Your task to perform on an android device: toggle improve location accuracy Image 0: 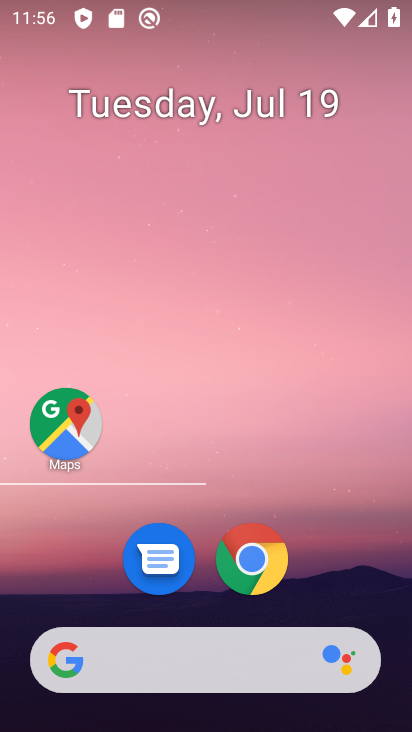
Step 0: press home button
Your task to perform on an android device: toggle improve location accuracy Image 1: 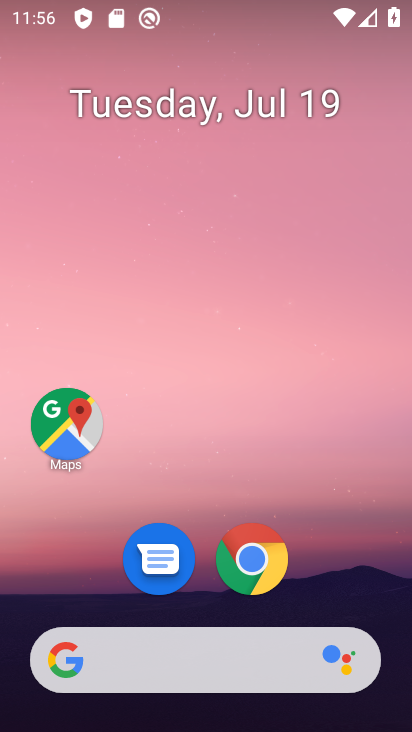
Step 1: drag from (369, 582) to (361, 82)
Your task to perform on an android device: toggle improve location accuracy Image 2: 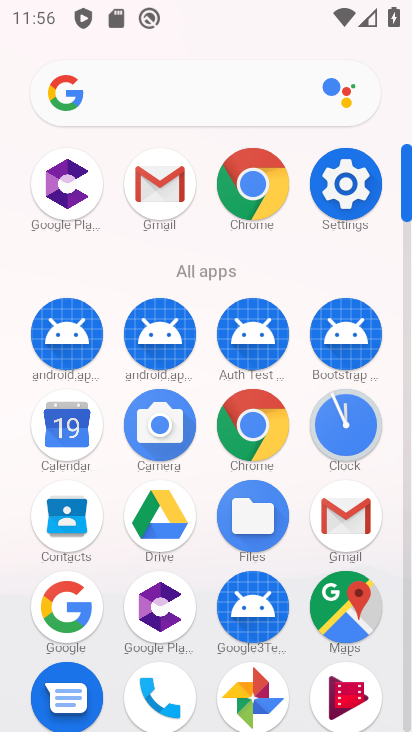
Step 2: click (344, 182)
Your task to perform on an android device: toggle improve location accuracy Image 3: 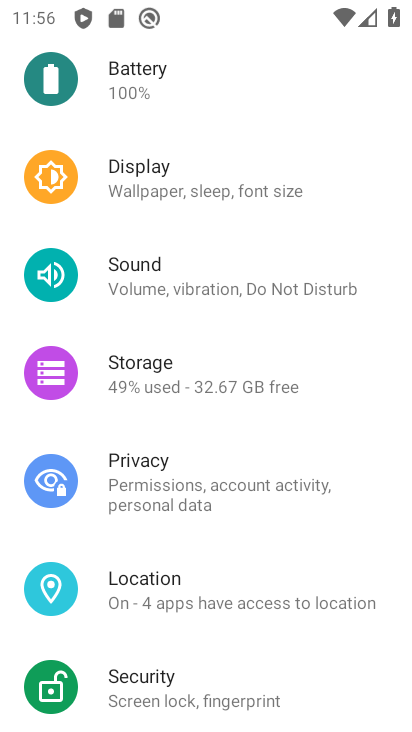
Step 3: drag from (343, 168) to (346, 254)
Your task to perform on an android device: toggle improve location accuracy Image 4: 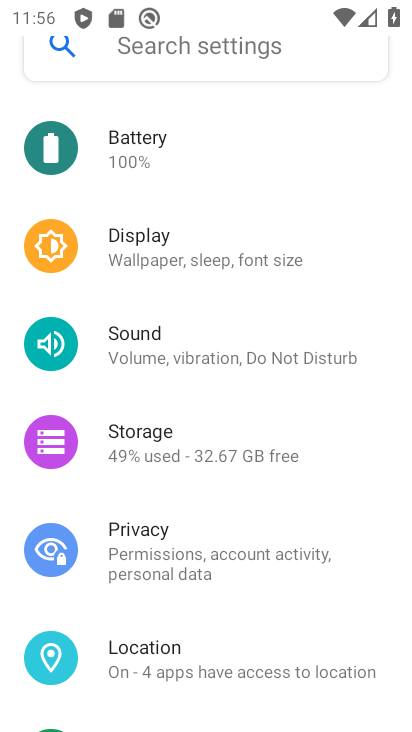
Step 4: drag from (355, 171) to (358, 277)
Your task to perform on an android device: toggle improve location accuracy Image 5: 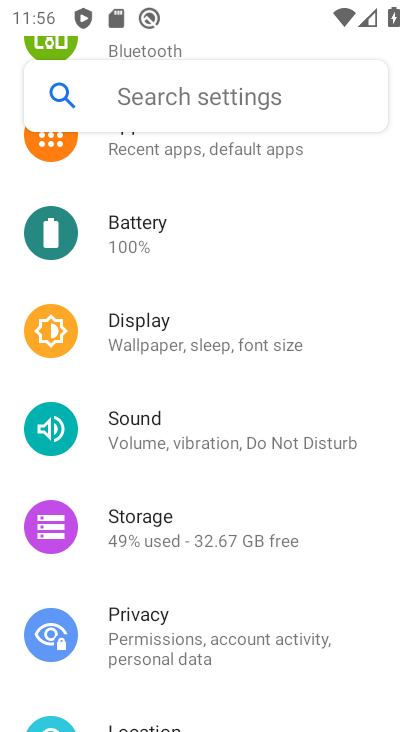
Step 5: drag from (351, 156) to (352, 290)
Your task to perform on an android device: toggle improve location accuracy Image 6: 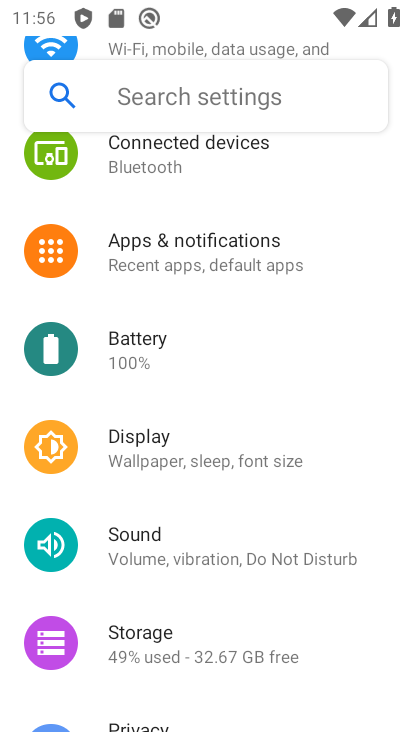
Step 6: drag from (346, 192) to (369, 369)
Your task to perform on an android device: toggle improve location accuracy Image 7: 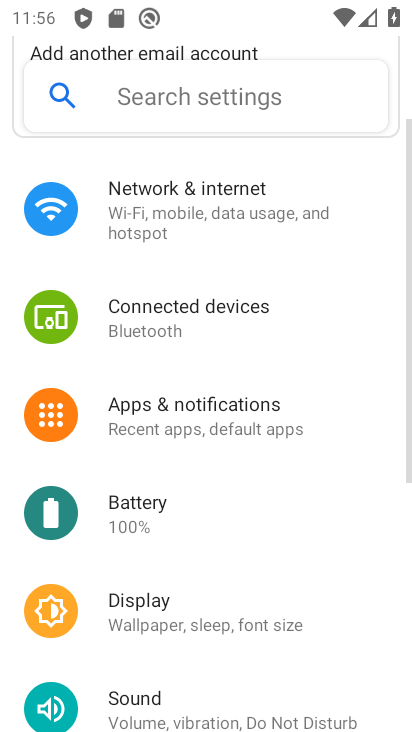
Step 7: drag from (360, 424) to (358, 338)
Your task to perform on an android device: toggle improve location accuracy Image 8: 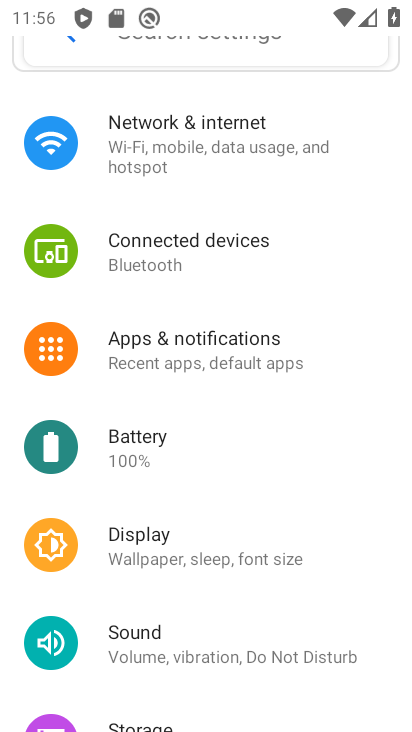
Step 8: drag from (350, 427) to (352, 332)
Your task to perform on an android device: toggle improve location accuracy Image 9: 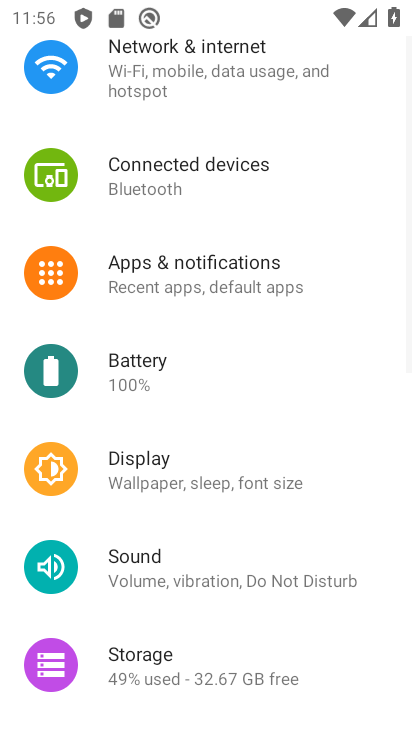
Step 9: drag from (346, 451) to (353, 349)
Your task to perform on an android device: toggle improve location accuracy Image 10: 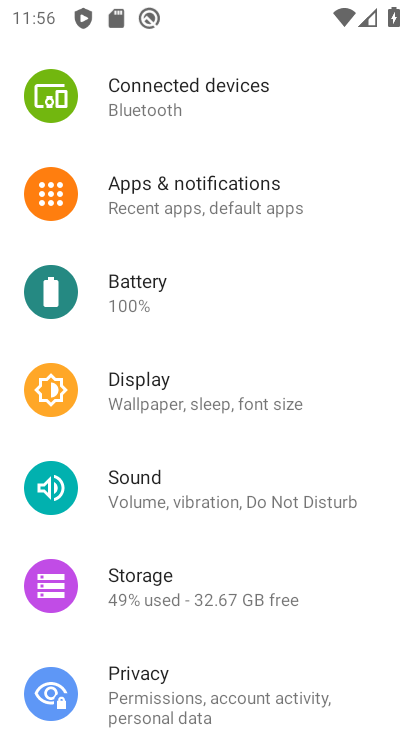
Step 10: drag from (351, 456) to (374, 286)
Your task to perform on an android device: toggle improve location accuracy Image 11: 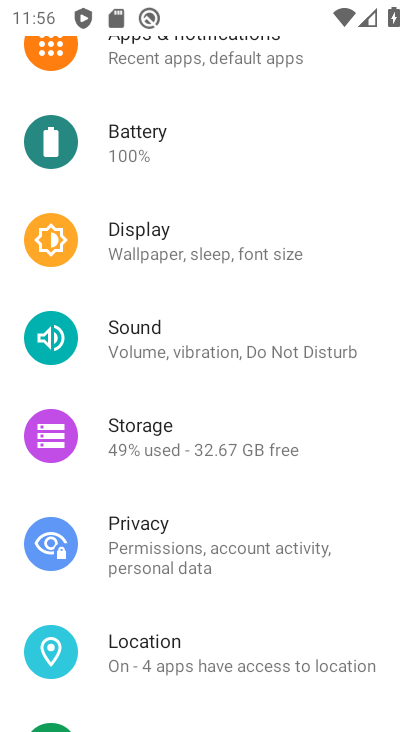
Step 11: drag from (378, 455) to (381, 317)
Your task to perform on an android device: toggle improve location accuracy Image 12: 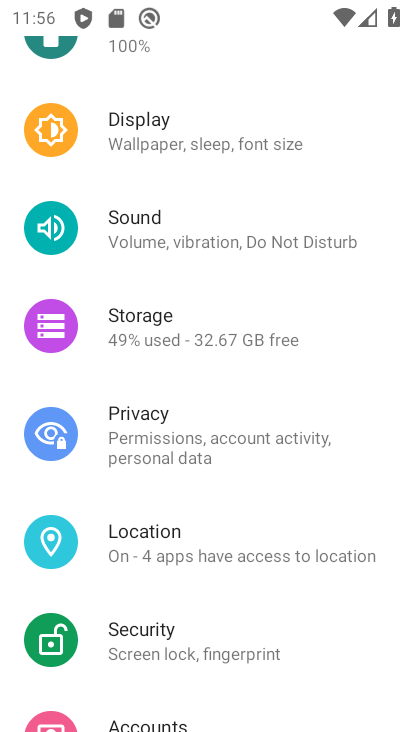
Step 12: click (335, 534)
Your task to perform on an android device: toggle improve location accuracy Image 13: 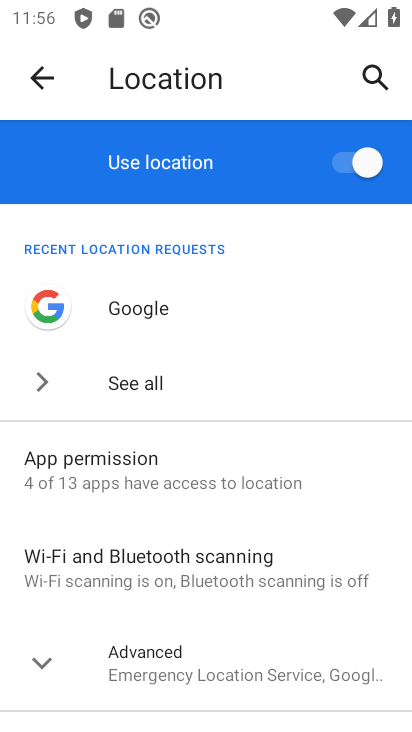
Step 13: click (295, 671)
Your task to perform on an android device: toggle improve location accuracy Image 14: 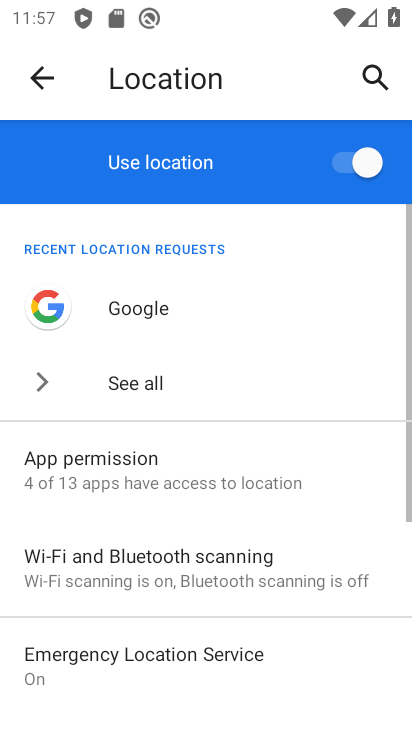
Step 14: drag from (308, 644) to (329, 510)
Your task to perform on an android device: toggle improve location accuracy Image 15: 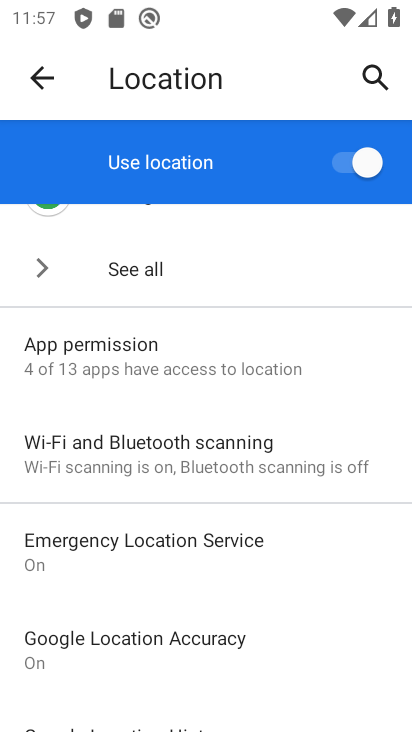
Step 15: drag from (339, 631) to (340, 519)
Your task to perform on an android device: toggle improve location accuracy Image 16: 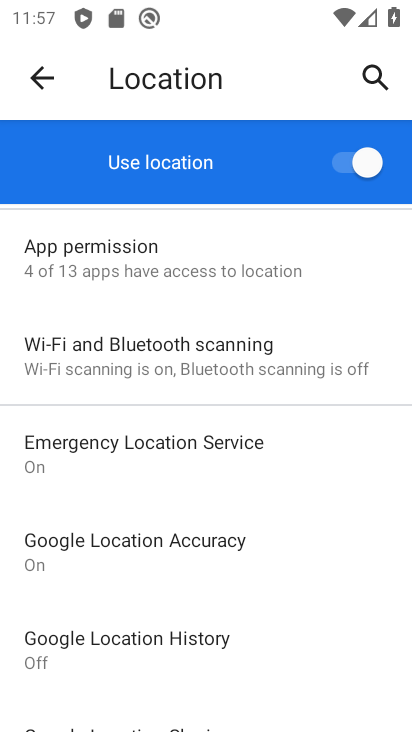
Step 16: click (254, 555)
Your task to perform on an android device: toggle improve location accuracy Image 17: 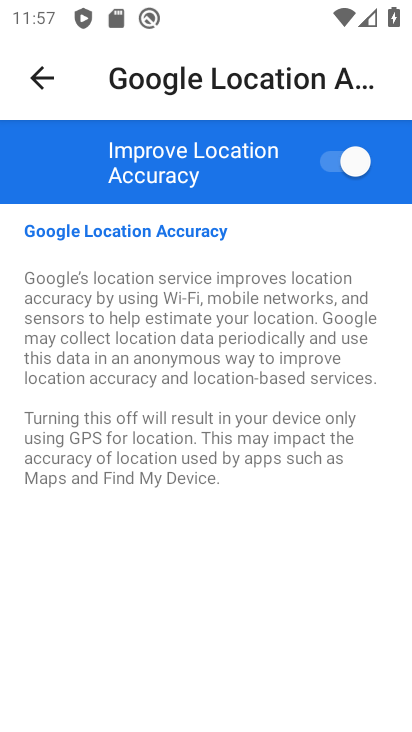
Step 17: click (353, 158)
Your task to perform on an android device: toggle improve location accuracy Image 18: 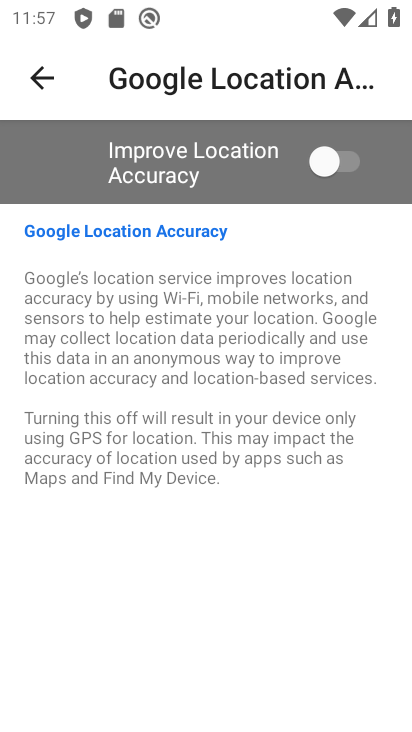
Step 18: task complete